Your task to perform on an android device: turn on notifications settings in the gmail app Image 0: 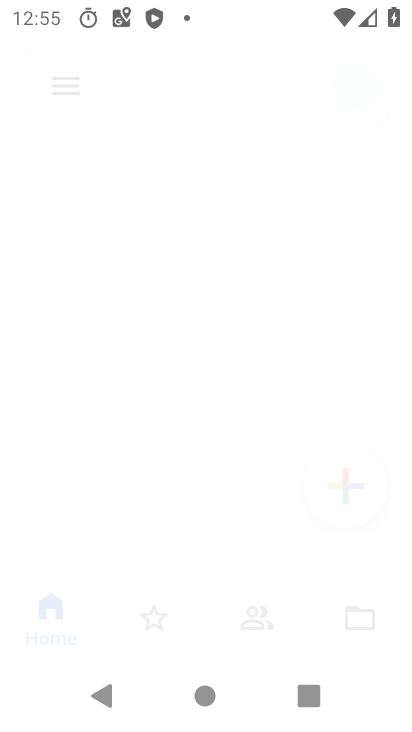
Step 0: drag from (217, 609) to (212, 155)
Your task to perform on an android device: turn on notifications settings in the gmail app Image 1: 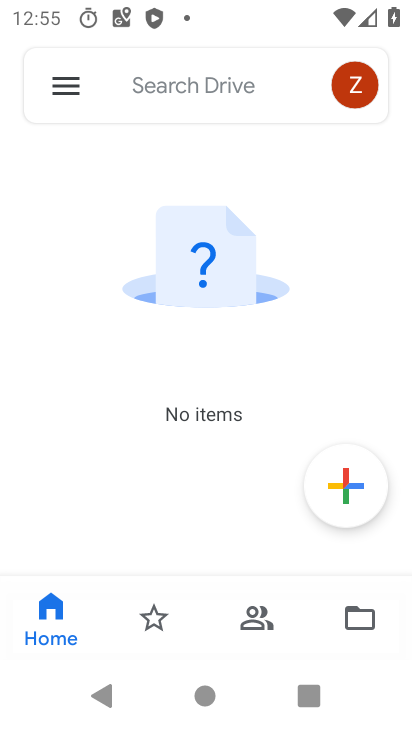
Step 1: press home button
Your task to perform on an android device: turn on notifications settings in the gmail app Image 2: 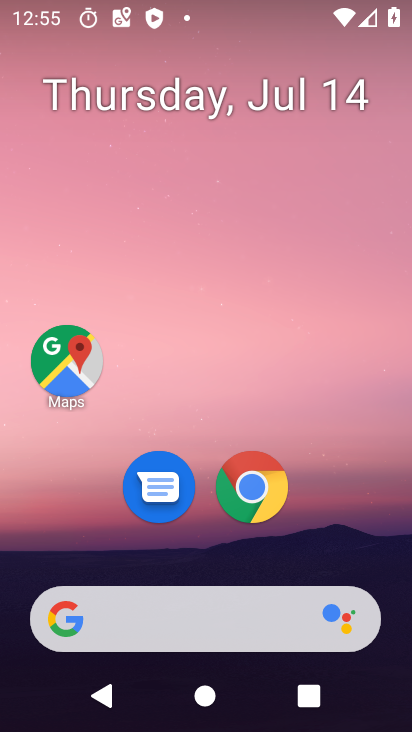
Step 2: drag from (224, 603) to (265, 116)
Your task to perform on an android device: turn on notifications settings in the gmail app Image 3: 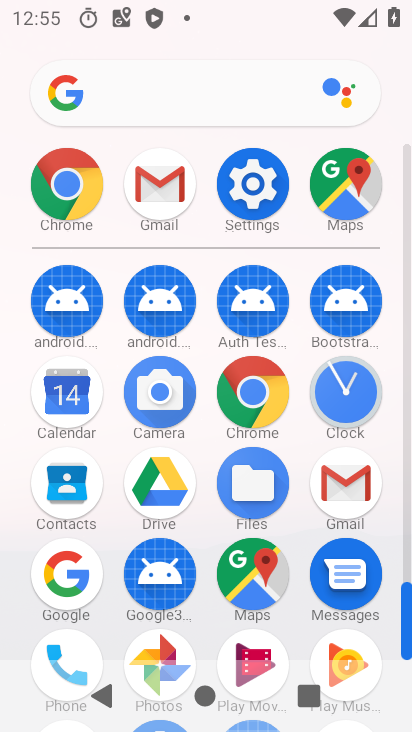
Step 3: click (338, 507)
Your task to perform on an android device: turn on notifications settings in the gmail app Image 4: 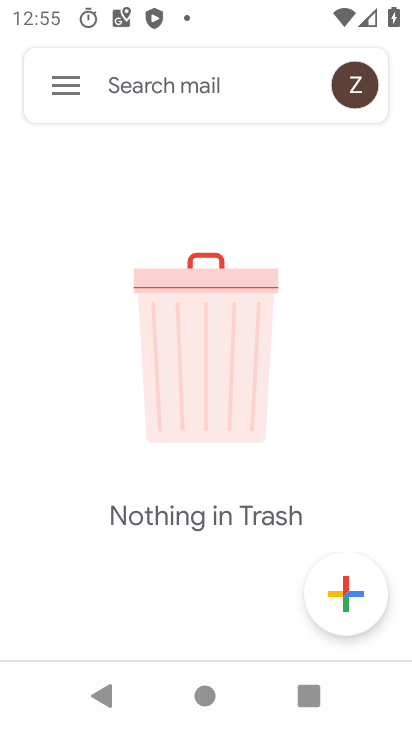
Step 4: click (70, 97)
Your task to perform on an android device: turn on notifications settings in the gmail app Image 5: 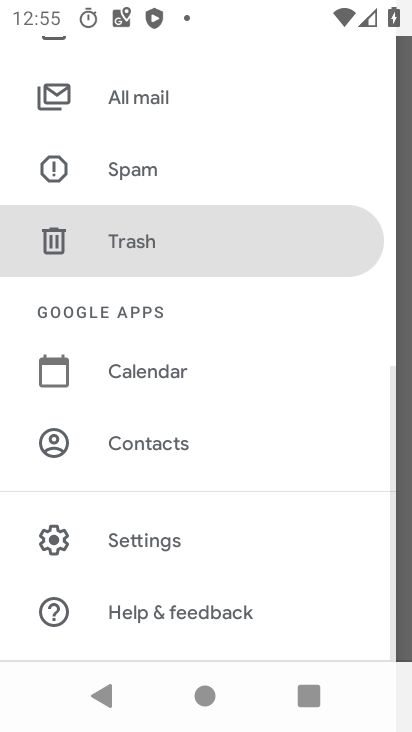
Step 5: click (154, 543)
Your task to perform on an android device: turn on notifications settings in the gmail app Image 6: 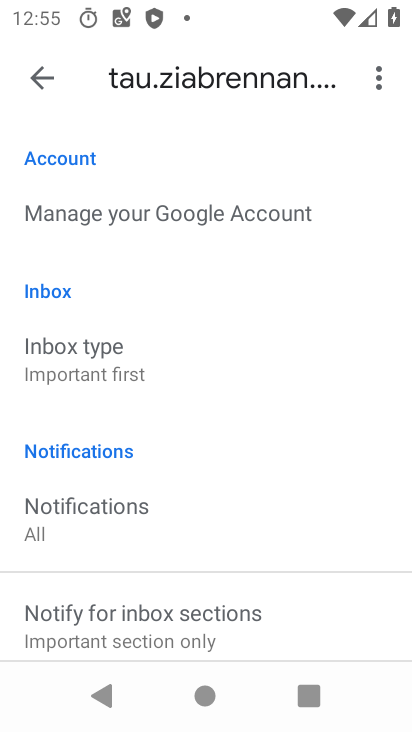
Step 6: drag from (123, 549) to (138, 590)
Your task to perform on an android device: turn on notifications settings in the gmail app Image 7: 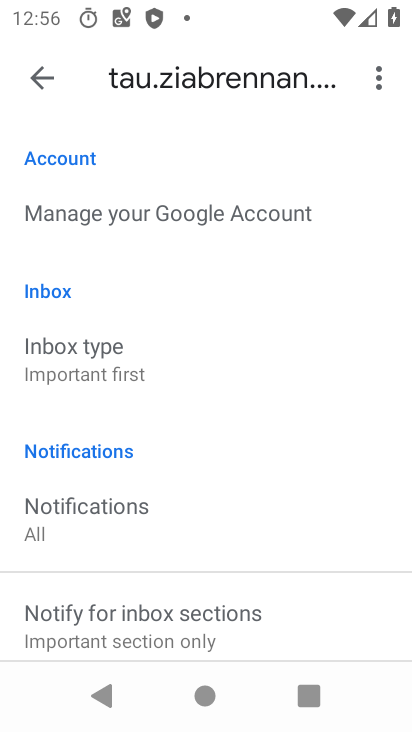
Step 7: click (33, 83)
Your task to perform on an android device: turn on notifications settings in the gmail app Image 8: 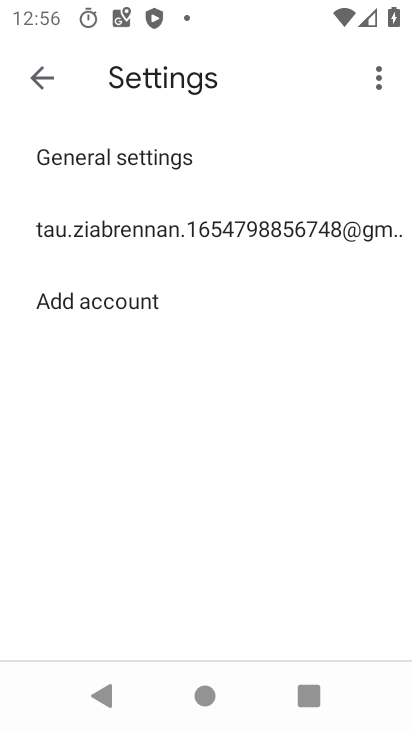
Step 8: click (101, 161)
Your task to perform on an android device: turn on notifications settings in the gmail app Image 9: 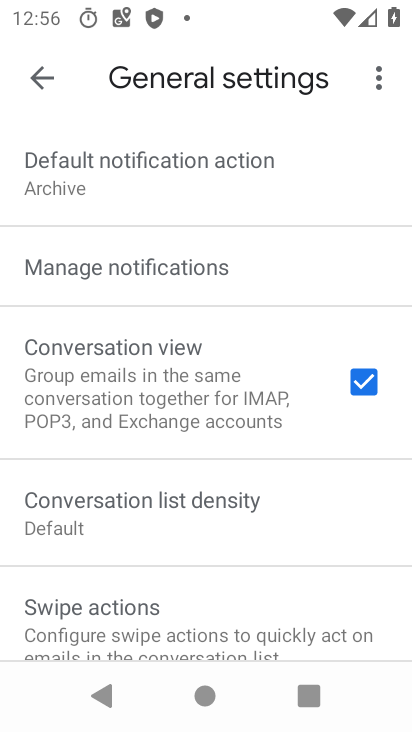
Step 9: click (135, 270)
Your task to perform on an android device: turn on notifications settings in the gmail app Image 10: 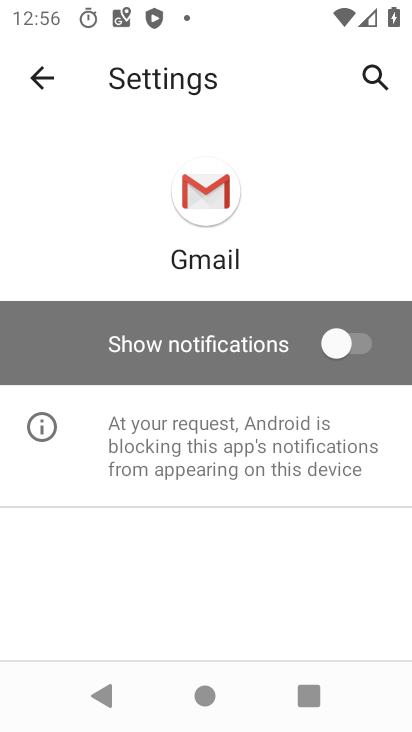
Step 10: click (189, 351)
Your task to perform on an android device: turn on notifications settings in the gmail app Image 11: 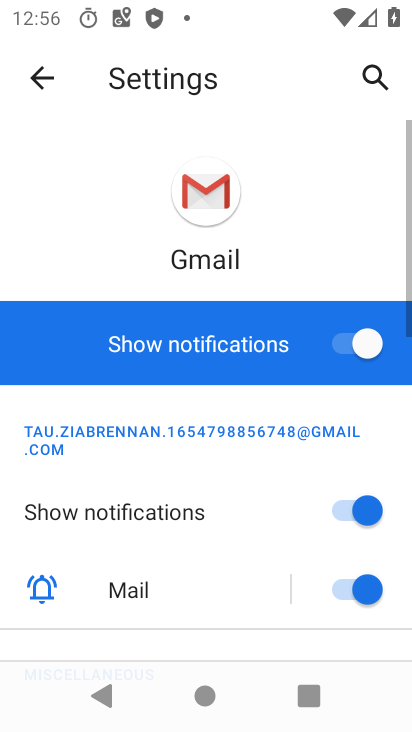
Step 11: task complete